Your task to perform on an android device: change the clock display to analog Image 0: 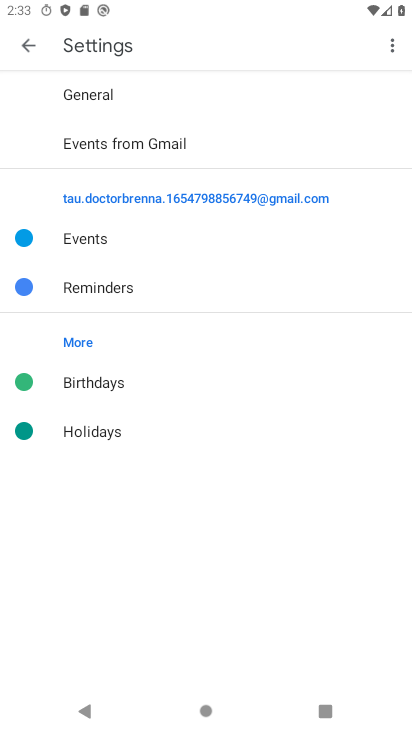
Step 0: press home button
Your task to perform on an android device: change the clock display to analog Image 1: 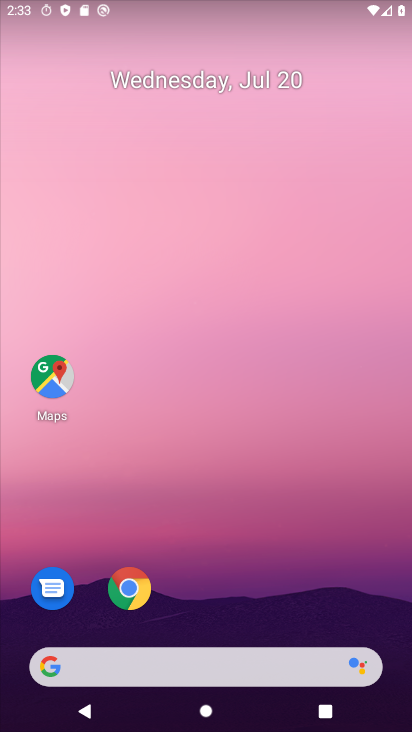
Step 1: drag from (195, 597) to (331, 5)
Your task to perform on an android device: change the clock display to analog Image 2: 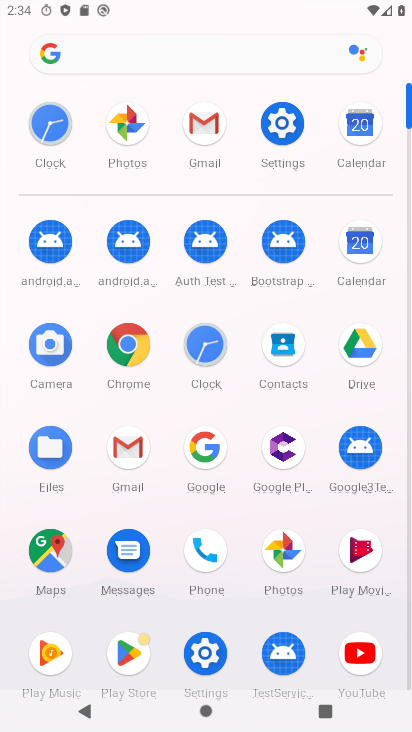
Step 2: click (194, 350)
Your task to perform on an android device: change the clock display to analog Image 3: 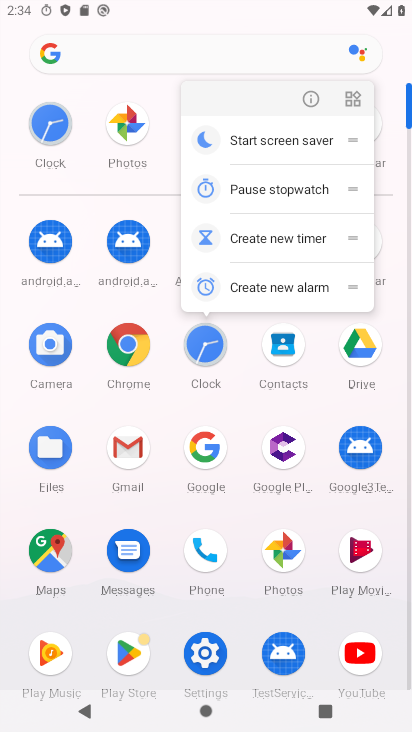
Step 3: click (315, 98)
Your task to perform on an android device: change the clock display to analog Image 4: 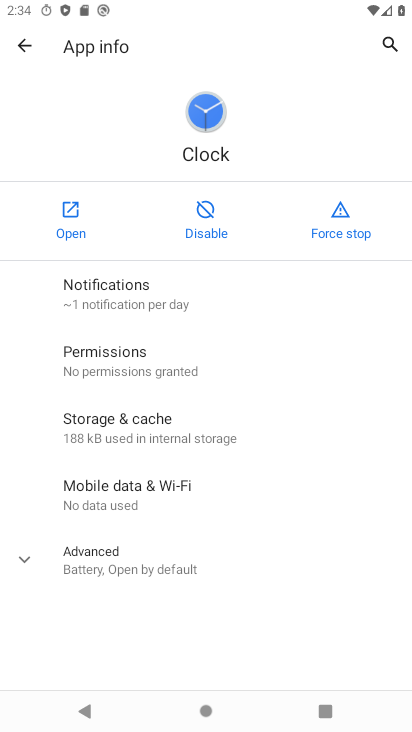
Step 4: click (72, 232)
Your task to perform on an android device: change the clock display to analog Image 5: 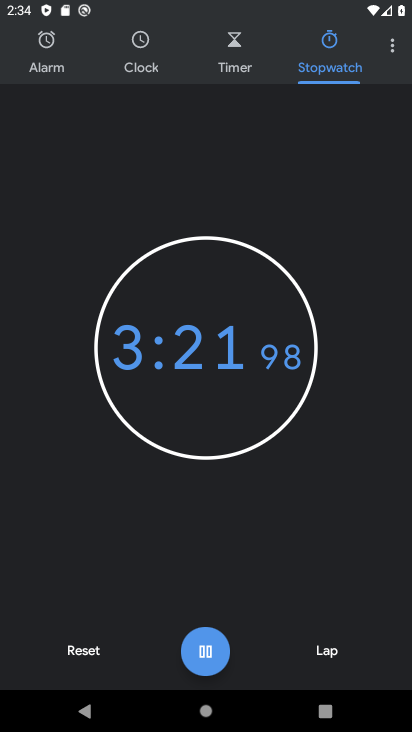
Step 5: drag from (390, 53) to (300, 91)
Your task to perform on an android device: change the clock display to analog Image 6: 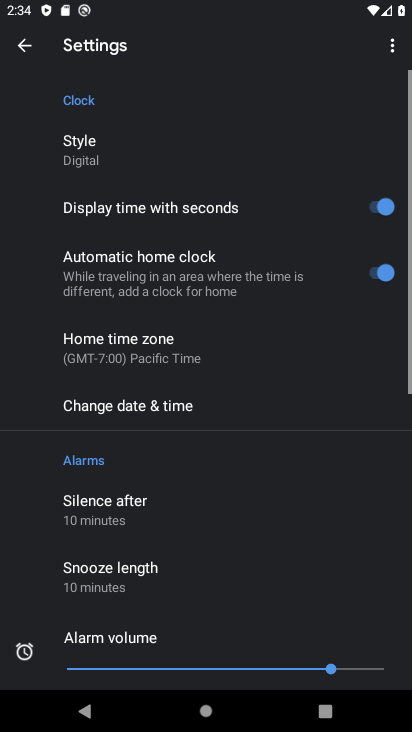
Step 6: click (300, 91)
Your task to perform on an android device: change the clock display to analog Image 7: 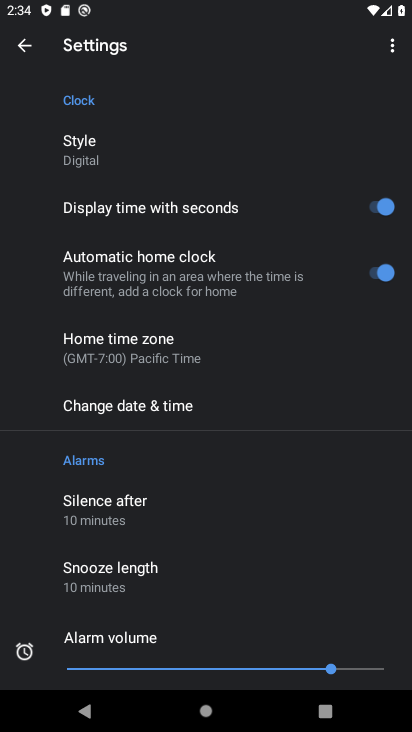
Step 7: click (112, 164)
Your task to perform on an android device: change the clock display to analog Image 8: 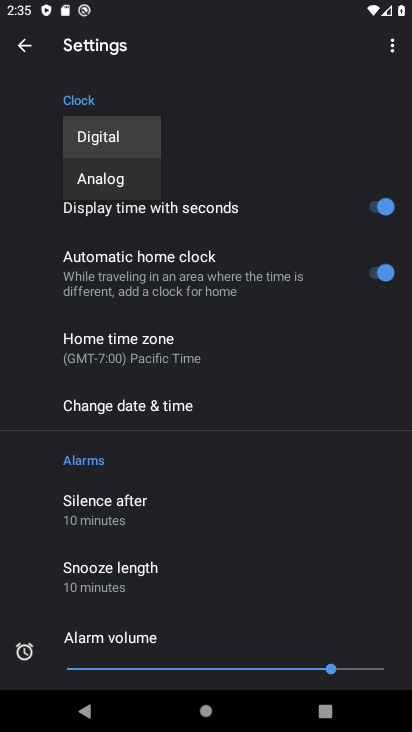
Step 8: click (134, 166)
Your task to perform on an android device: change the clock display to analog Image 9: 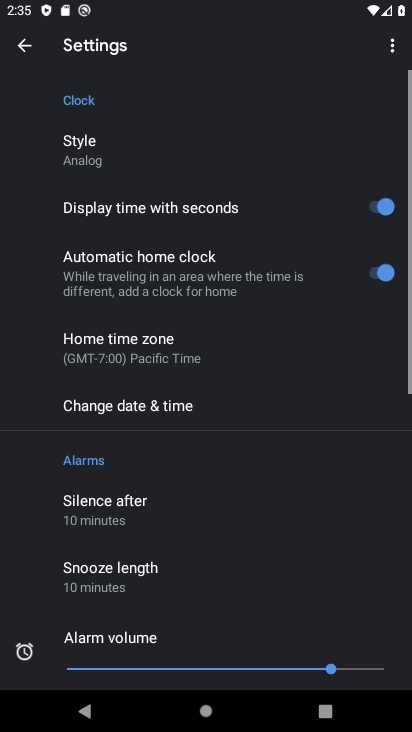
Step 9: task complete